Your task to perform on an android device: What's the weather going to be tomorrow? Image 0: 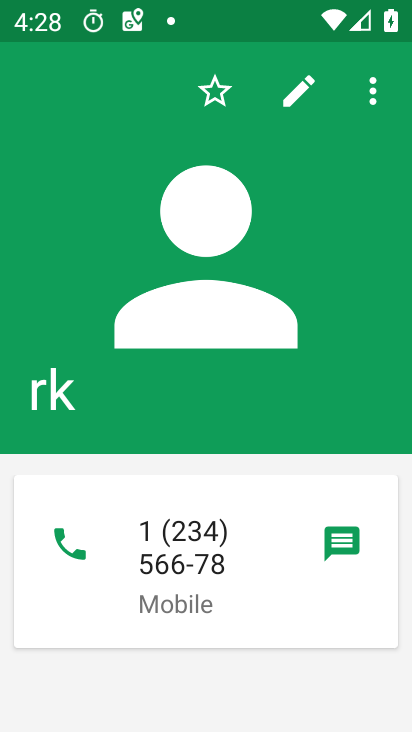
Step 0: press home button
Your task to perform on an android device: What's the weather going to be tomorrow? Image 1: 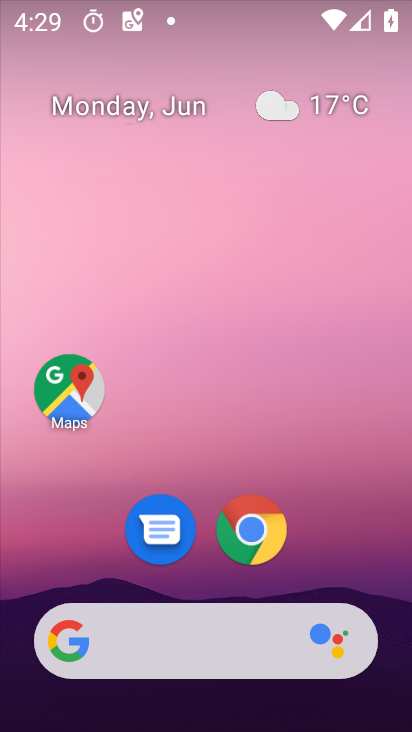
Step 1: drag from (323, 556) to (229, 43)
Your task to perform on an android device: What's the weather going to be tomorrow? Image 2: 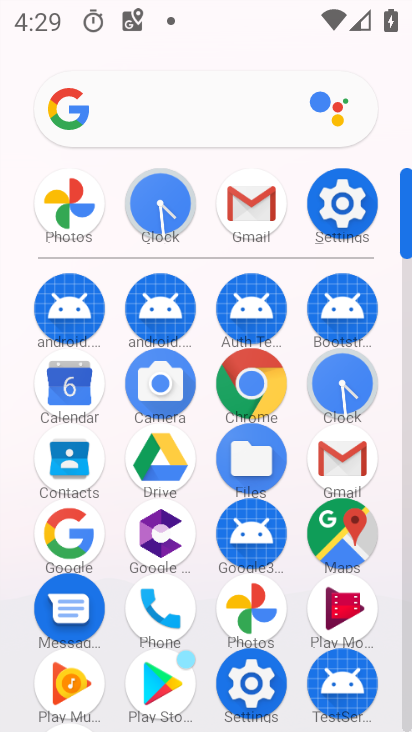
Step 2: click (64, 531)
Your task to perform on an android device: What's the weather going to be tomorrow? Image 3: 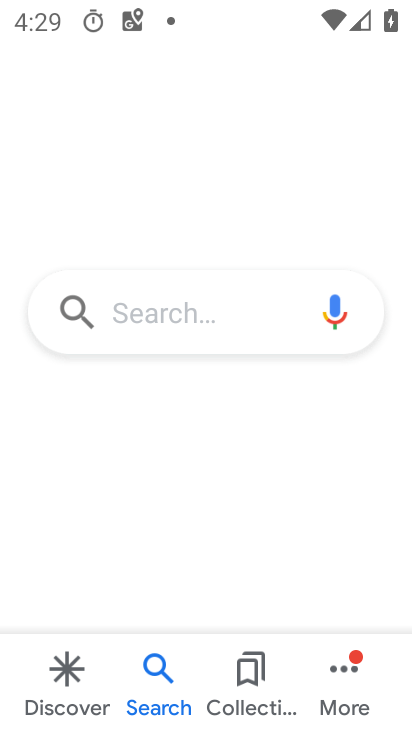
Step 3: click (167, 317)
Your task to perform on an android device: What's the weather going to be tomorrow? Image 4: 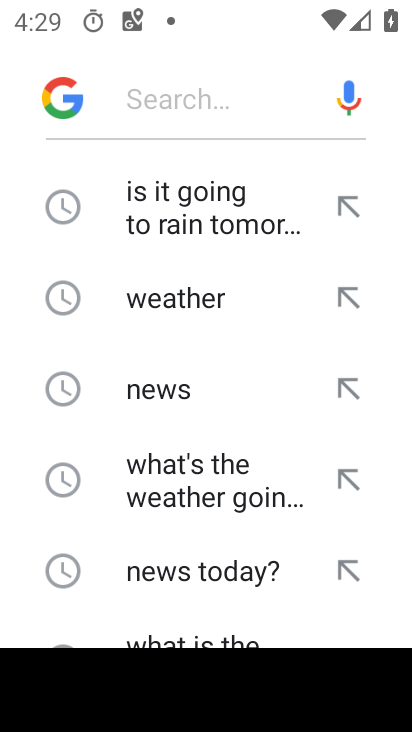
Step 4: type "What's the weather going to be tomorrow?"
Your task to perform on an android device: What's the weather going to be tomorrow? Image 5: 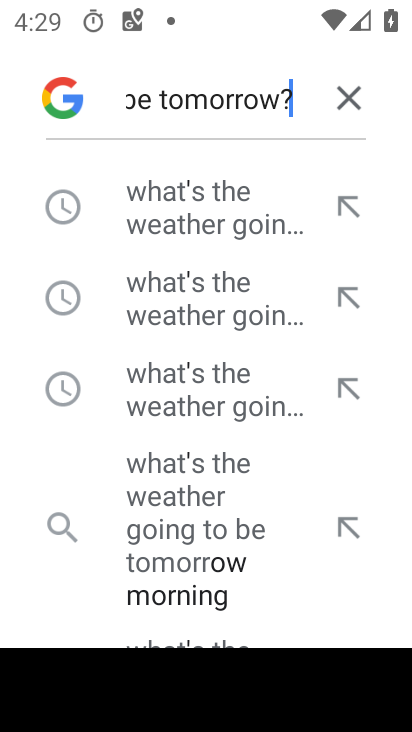
Step 5: type ""
Your task to perform on an android device: What's the weather going to be tomorrow? Image 6: 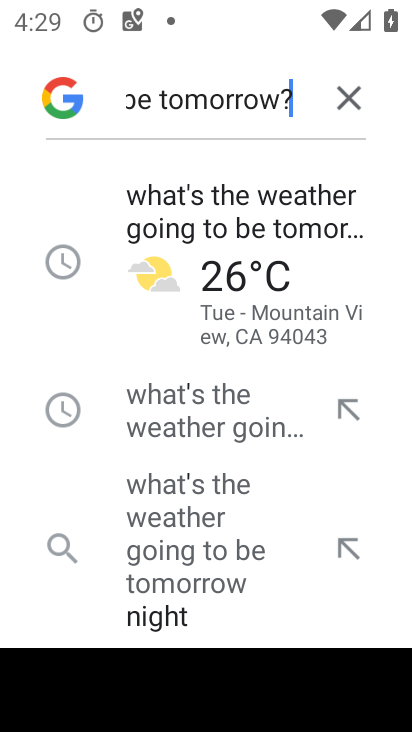
Step 6: click (204, 227)
Your task to perform on an android device: What's the weather going to be tomorrow? Image 7: 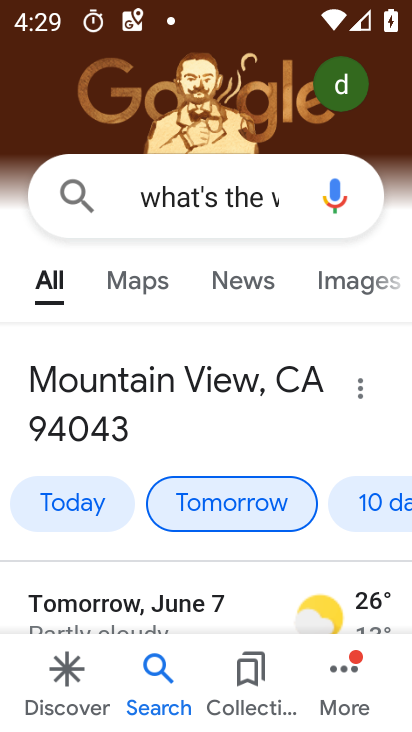
Step 7: task complete